Your task to perform on an android device: turn off wifi Image 0: 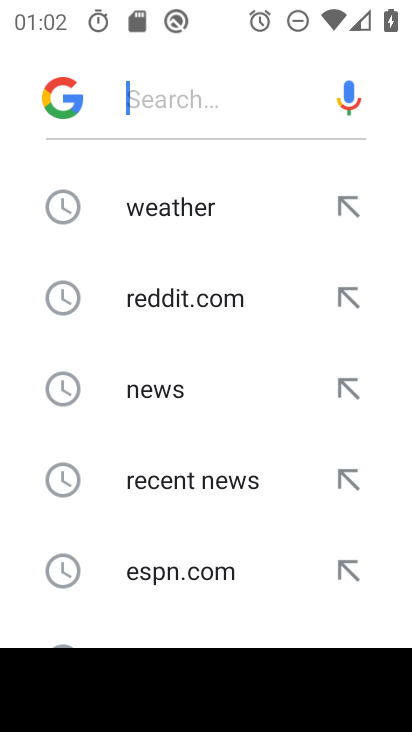
Step 0: press home button
Your task to perform on an android device: turn off wifi Image 1: 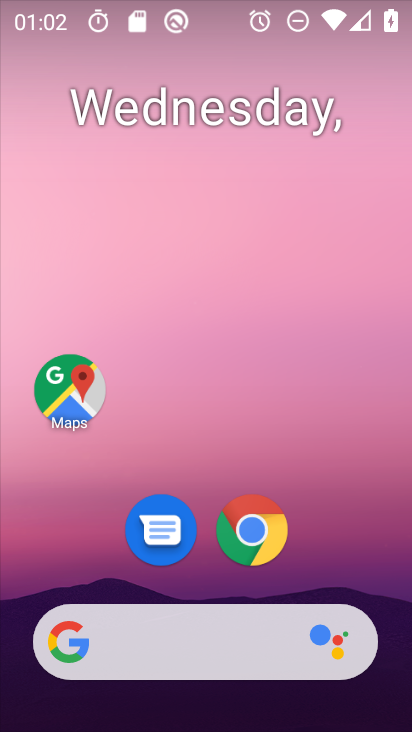
Step 1: drag from (234, 662) to (291, 62)
Your task to perform on an android device: turn off wifi Image 2: 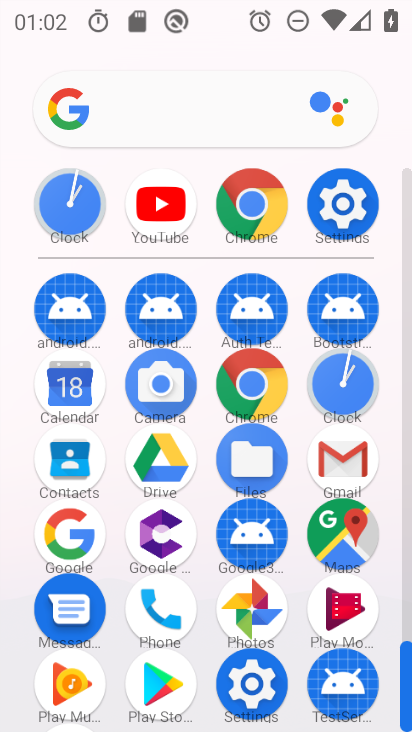
Step 2: click (235, 683)
Your task to perform on an android device: turn off wifi Image 3: 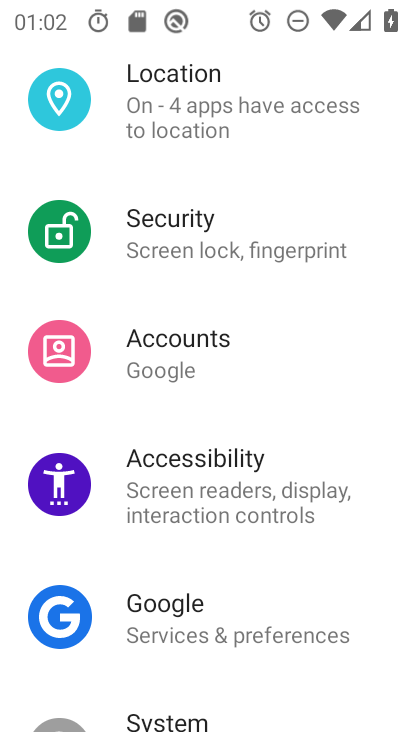
Step 3: drag from (274, 235) to (199, 709)
Your task to perform on an android device: turn off wifi Image 4: 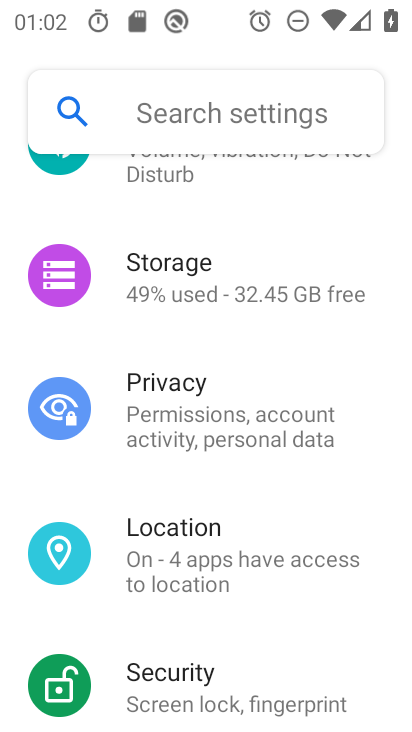
Step 4: drag from (278, 253) to (316, 725)
Your task to perform on an android device: turn off wifi Image 5: 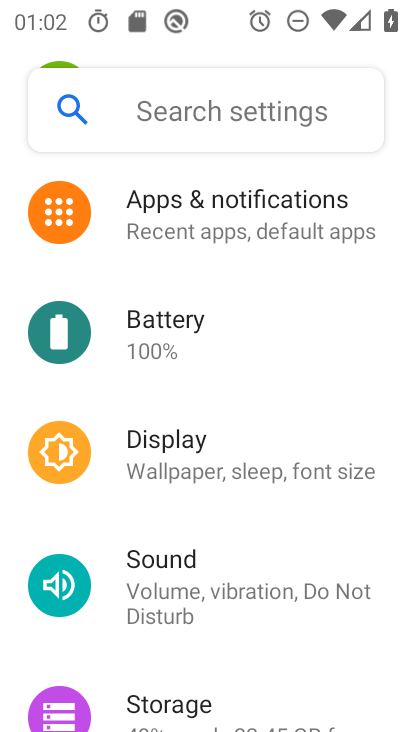
Step 5: drag from (281, 268) to (316, 706)
Your task to perform on an android device: turn off wifi Image 6: 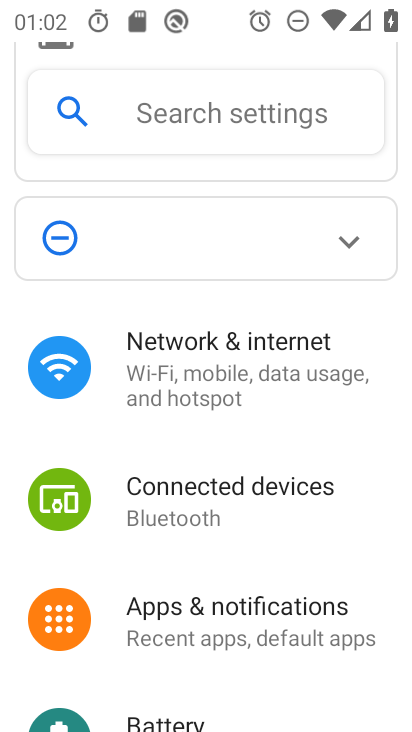
Step 6: click (285, 386)
Your task to perform on an android device: turn off wifi Image 7: 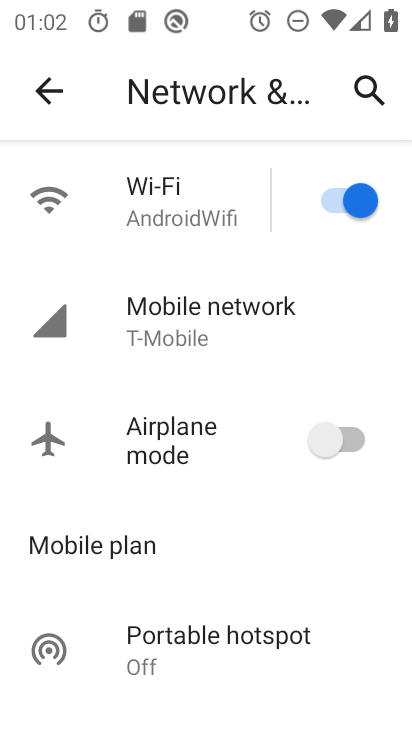
Step 7: click (356, 211)
Your task to perform on an android device: turn off wifi Image 8: 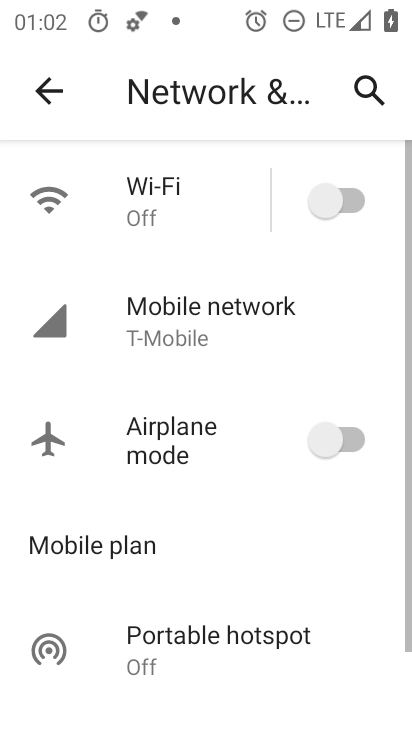
Step 8: task complete